Your task to perform on an android device: Open notification settings Image 0: 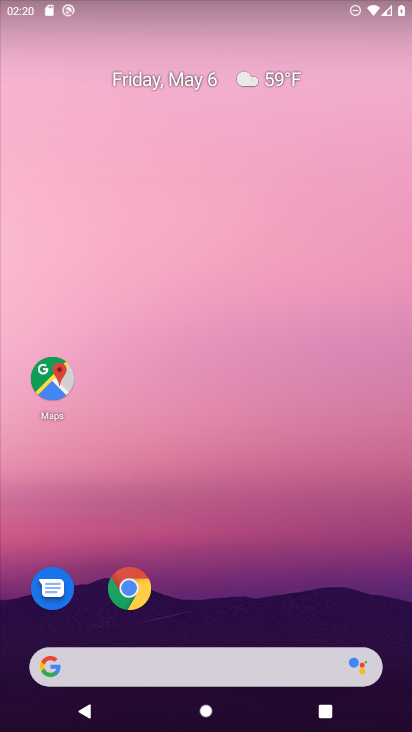
Step 0: drag from (178, 604) to (262, 213)
Your task to perform on an android device: Open notification settings Image 1: 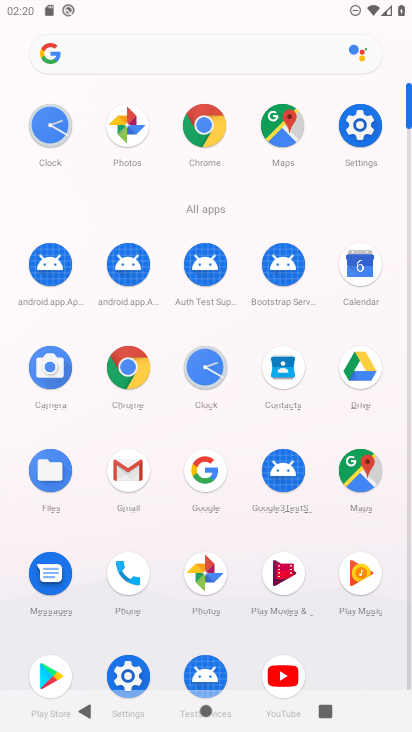
Step 1: click (370, 142)
Your task to perform on an android device: Open notification settings Image 2: 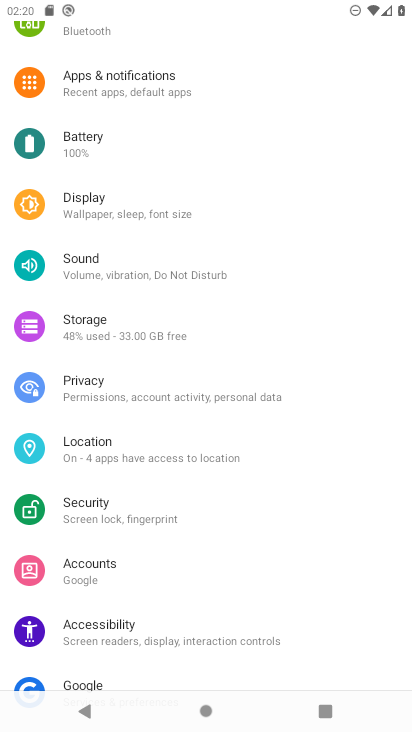
Step 2: click (165, 98)
Your task to perform on an android device: Open notification settings Image 3: 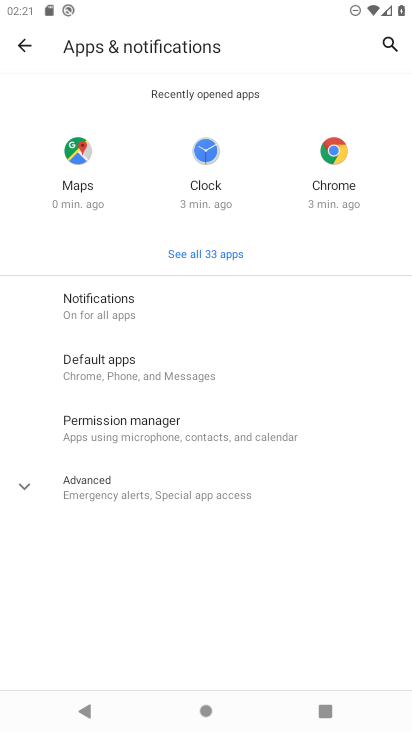
Step 3: task complete